Your task to perform on an android device: change the clock display to show seconds Image 0: 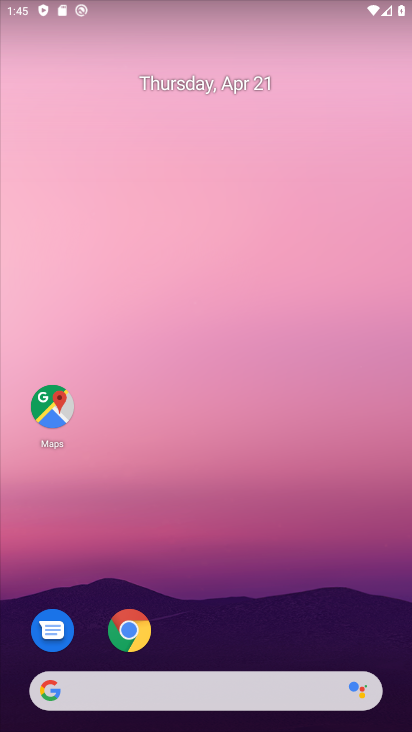
Step 0: drag from (246, 366) to (246, 122)
Your task to perform on an android device: change the clock display to show seconds Image 1: 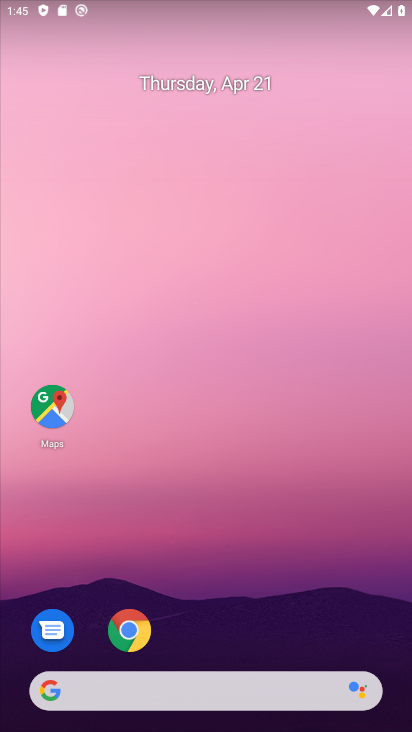
Step 1: drag from (209, 287) to (209, 209)
Your task to perform on an android device: change the clock display to show seconds Image 2: 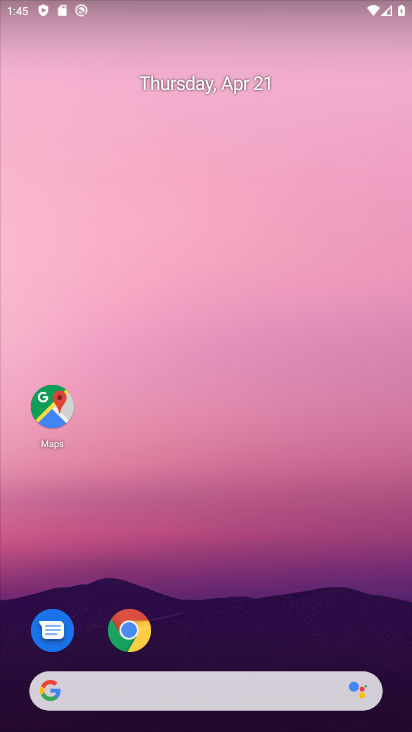
Step 2: drag from (213, 617) to (233, 185)
Your task to perform on an android device: change the clock display to show seconds Image 3: 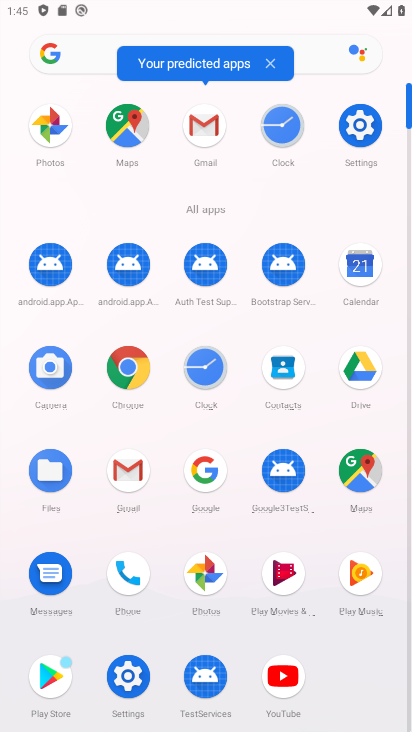
Step 3: click (210, 355)
Your task to perform on an android device: change the clock display to show seconds Image 4: 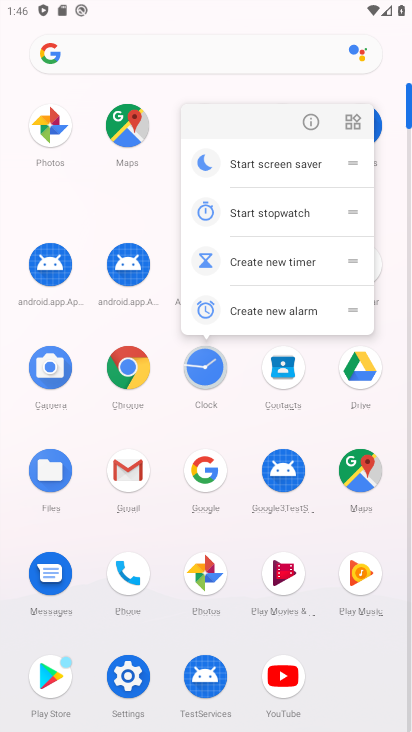
Step 4: click (210, 381)
Your task to perform on an android device: change the clock display to show seconds Image 5: 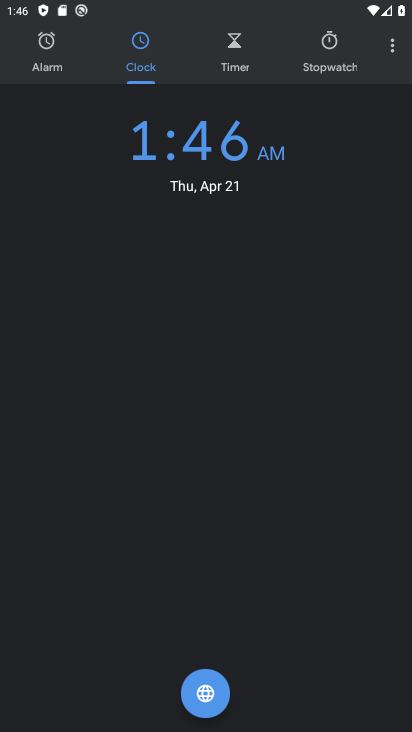
Step 5: click (392, 45)
Your task to perform on an android device: change the clock display to show seconds Image 6: 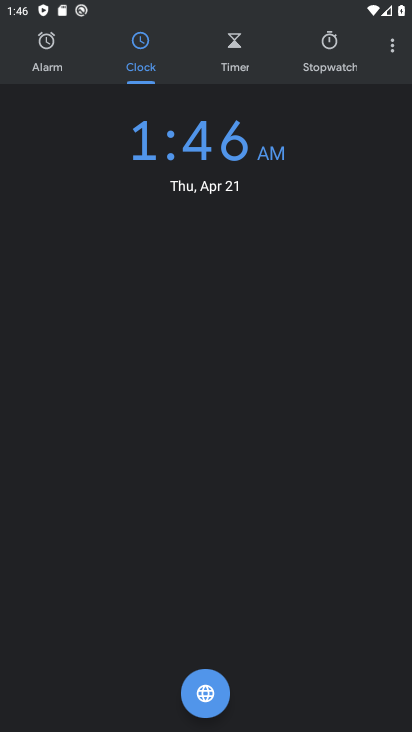
Step 6: click (391, 58)
Your task to perform on an android device: change the clock display to show seconds Image 7: 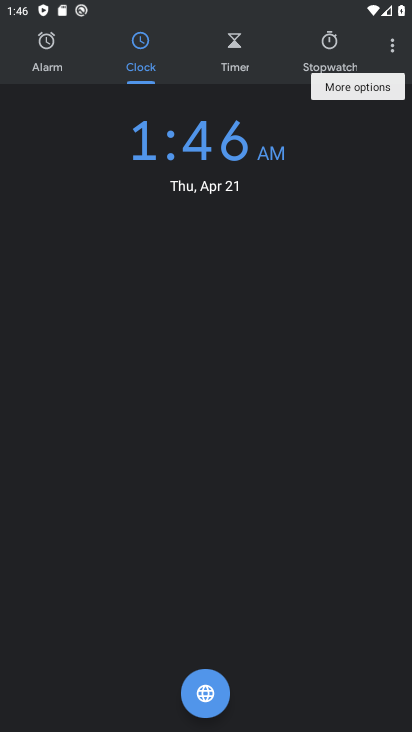
Step 7: click (391, 50)
Your task to perform on an android device: change the clock display to show seconds Image 8: 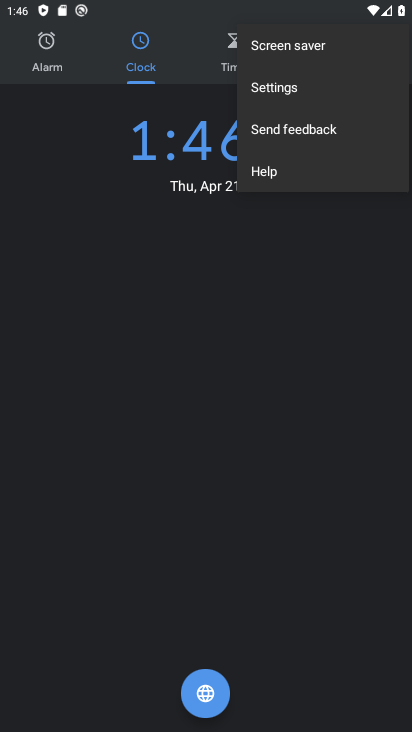
Step 8: click (304, 94)
Your task to perform on an android device: change the clock display to show seconds Image 9: 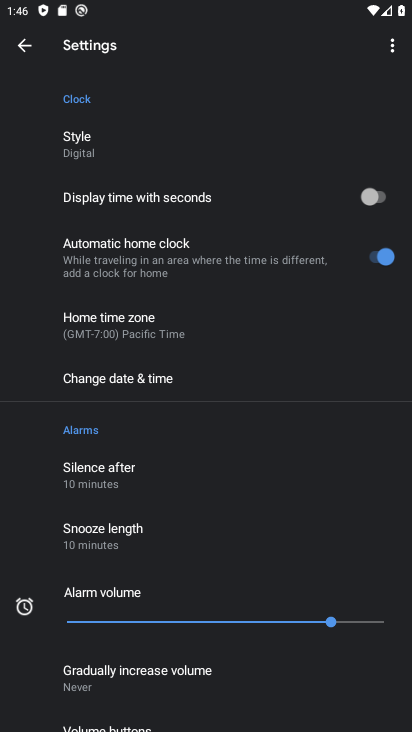
Step 9: click (380, 201)
Your task to perform on an android device: change the clock display to show seconds Image 10: 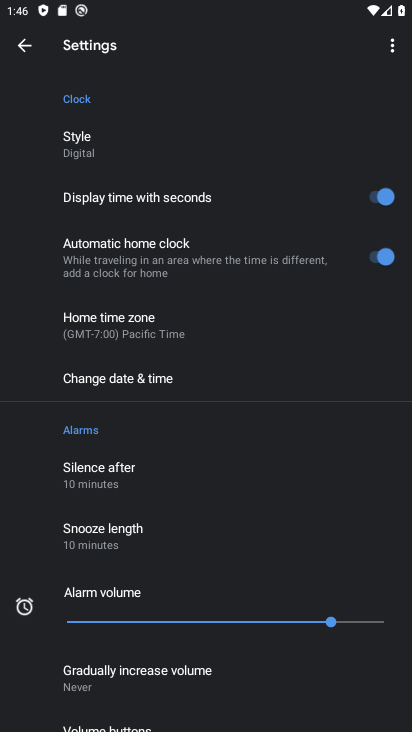
Step 10: task complete